Your task to perform on an android device: turn off airplane mode Image 0: 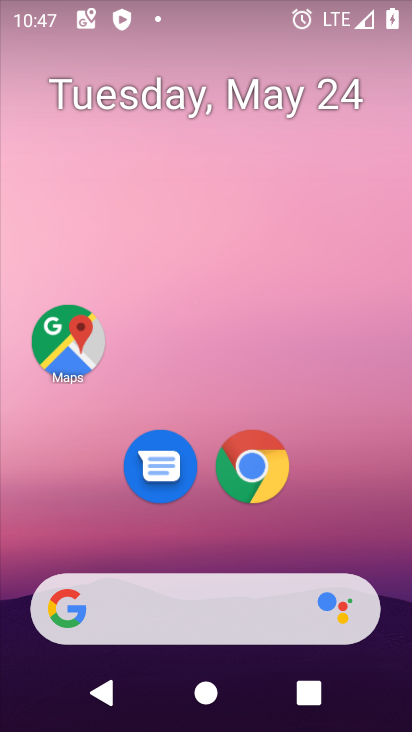
Step 0: drag from (390, 558) to (392, 265)
Your task to perform on an android device: turn off airplane mode Image 1: 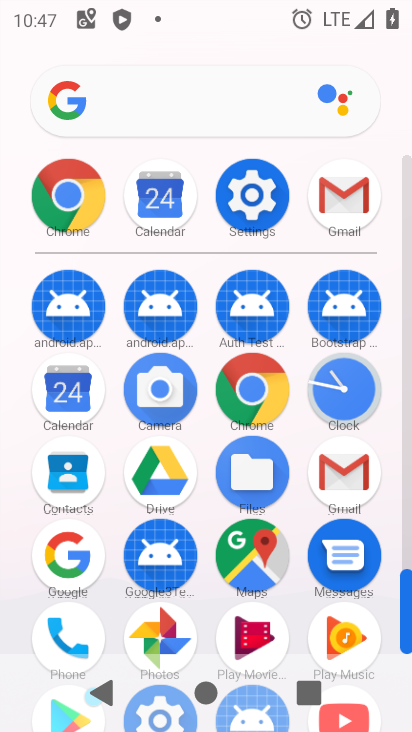
Step 1: click (256, 205)
Your task to perform on an android device: turn off airplane mode Image 2: 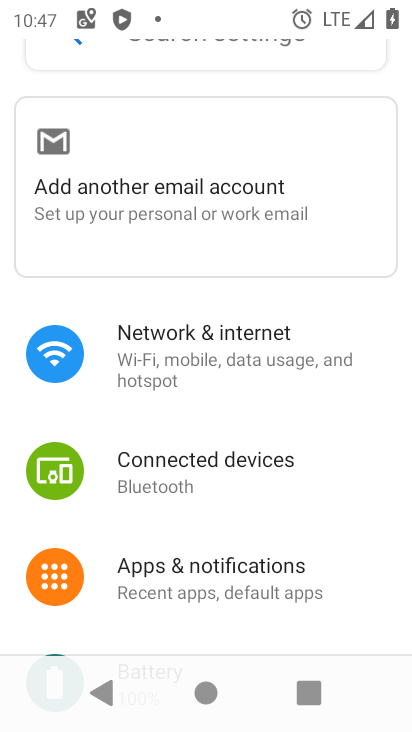
Step 2: drag from (367, 573) to (344, 469)
Your task to perform on an android device: turn off airplane mode Image 3: 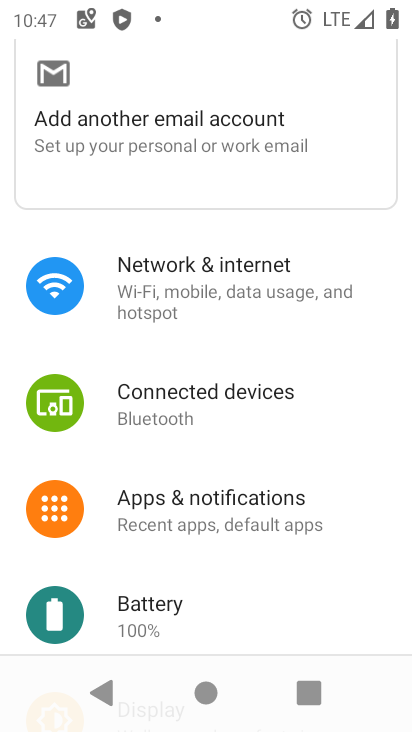
Step 3: drag from (361, 579) to (361, 434)
Your task to perform on an android device: turn off airplane mode Image 4: 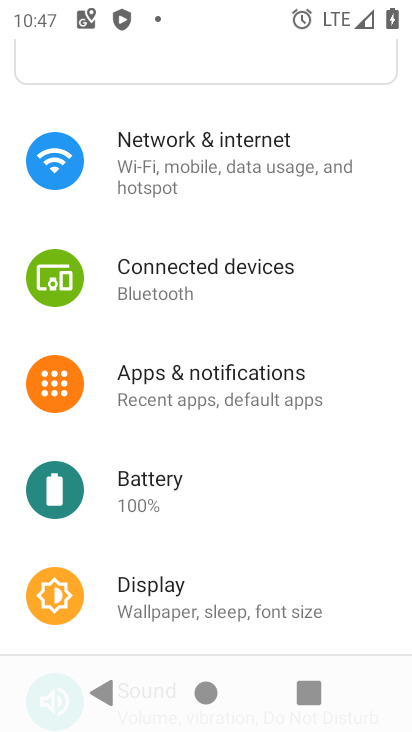
Step 4: drag from (350, 596) to (351, 485)
Your task to perform on an android device: turn off airplane mode Image 5: 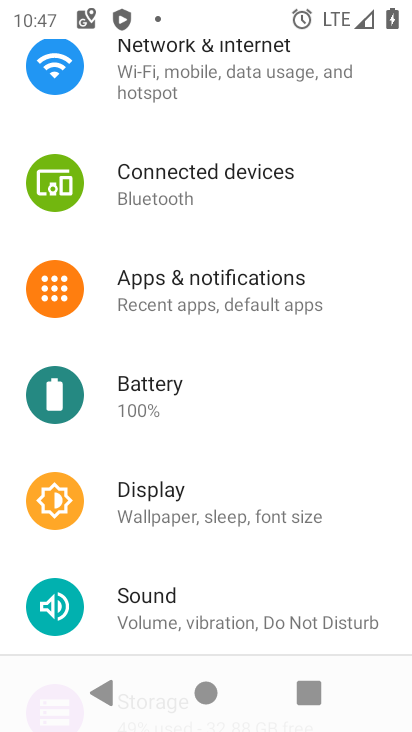
Step 5: drag from (363, 579) to (353, 492)
Your task to perform on an android device: turn off airplane mode Image 6: 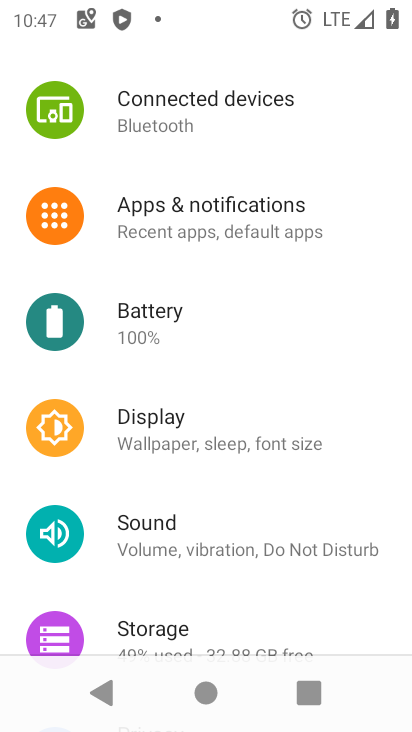
Step 6: drag from (364, 612) to (363, 505)
Your task to perform on an android device: turn off airplane mode Image 7: 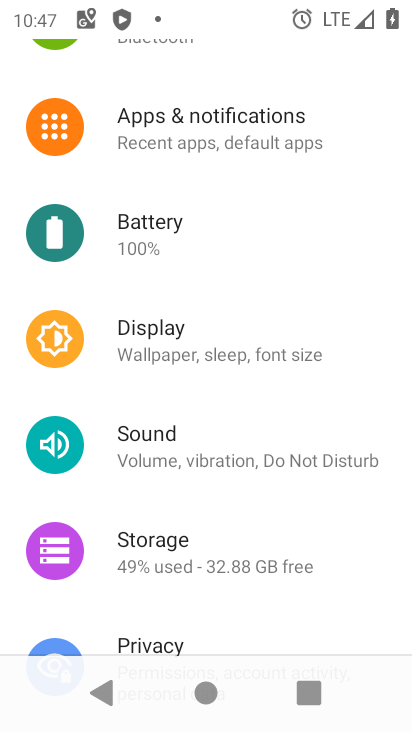
Step 7: drag from (378, 600) to (383, 507)
Your task to perform on an android device: turn off airplane mode Image 8: 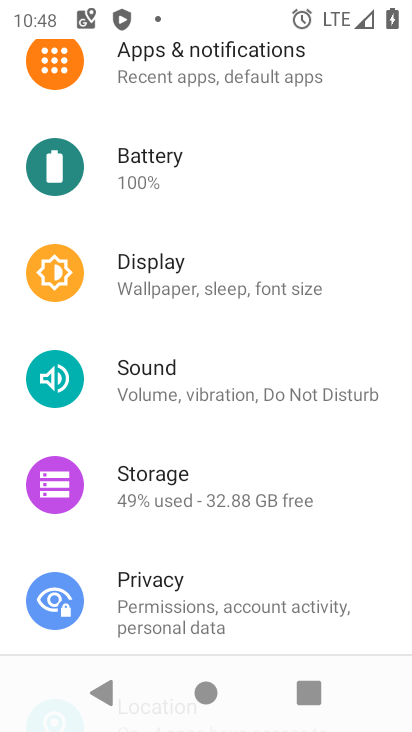
Step 8: drag from (373, 604) to (352, 506)
Your task to perform on an android device: turn off airplane mode Image 9: 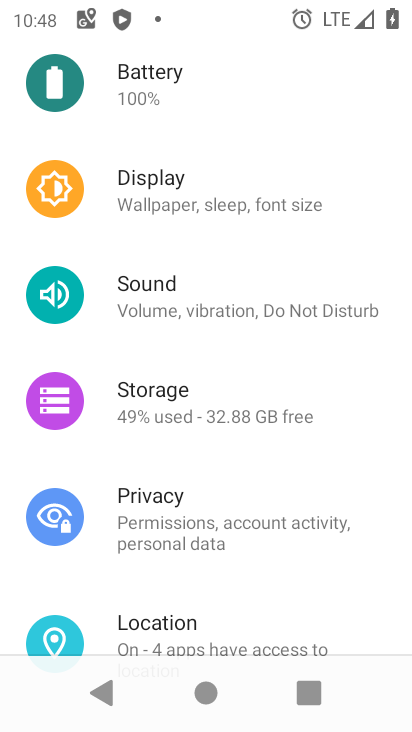
Step 9: drag from (362, 613) to (362, 505)
Your task to perform on an android device: turn off airplane mode Image 10: 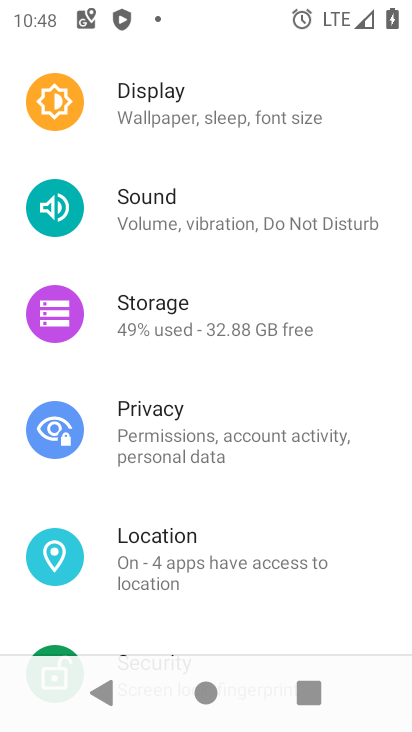
Step 10: drag from (360, 346) to (366, 479)
Your task to perform on an android device: turn off airplane mode Image 11: 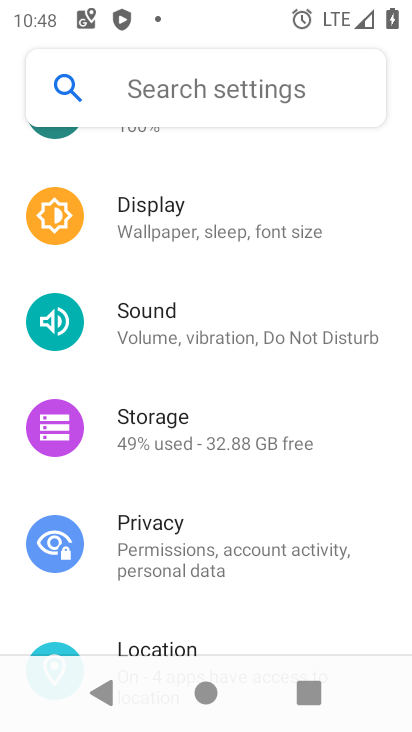
Step 11: drag from (367, 303) to (367, 425)
Your task to perform on an android device: turn off airplane mode Image 12: 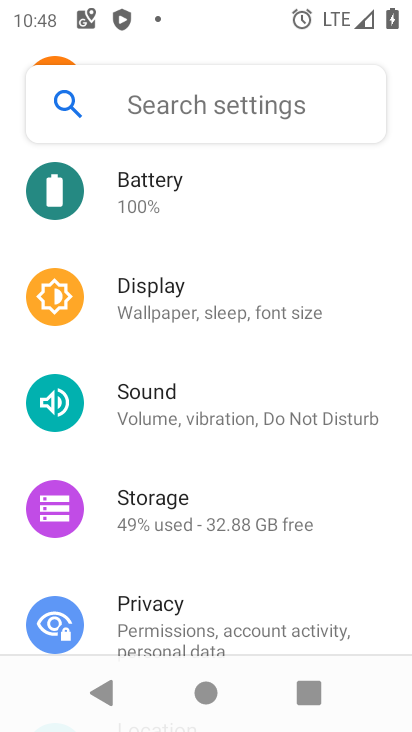
Step 12: drag from (368, 281) to (353, 391)
Your task to perform on an android device: turn off airplane mode Image 13: 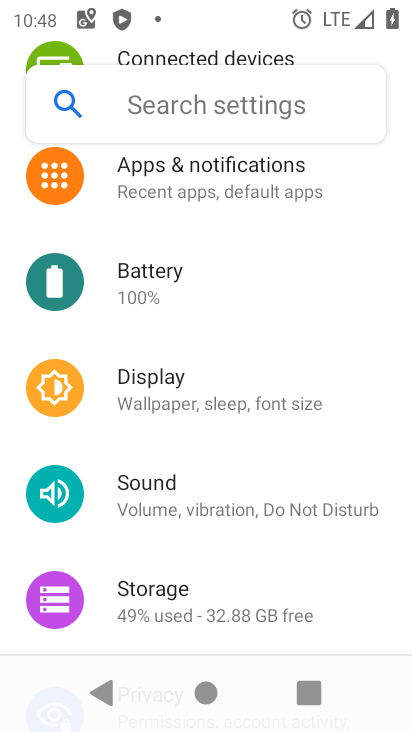
Step 13: drag from (365, 273) to (366, 381)
Your task to perform on an android device: turn off airplane mode Image 14: 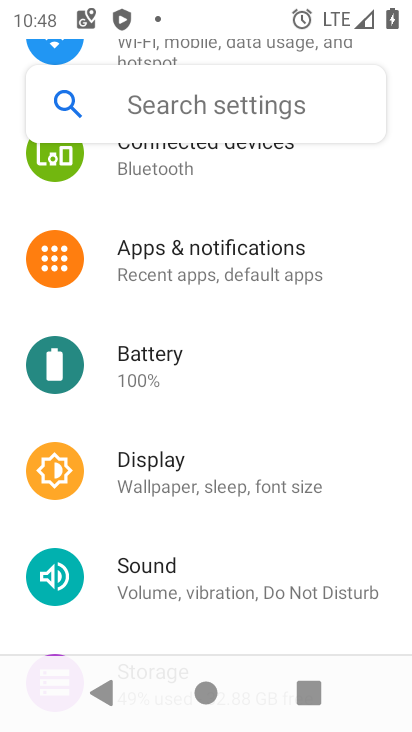
Step 14: drag from (363, 231) to (341, 358)
Your task to perform on an android device: turn off airplane mode Image 15: 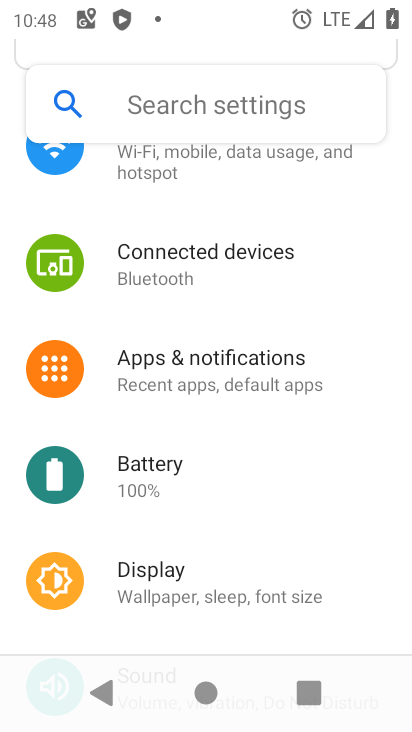
Step 15: drag from (362, 234) to (376, 344)
Your task to perform on an android device: turn off airplane mode Image 16: 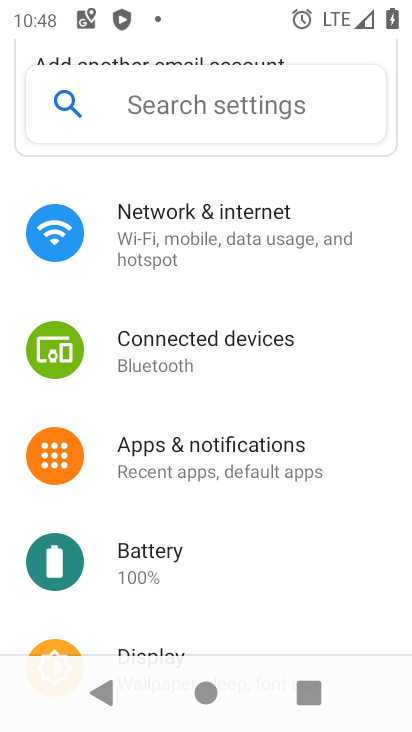
Step 16: click (347, 239)
Your task to perform on an android device: turn off airplane mode Image 17: 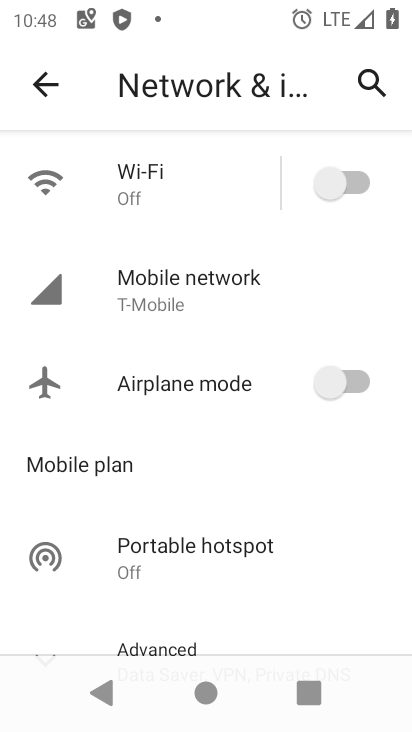
Step 17: task complete